Your task to perform on an android device: Add "logitech g pro" to the cart on costco.com, then select checkout. Image 0: 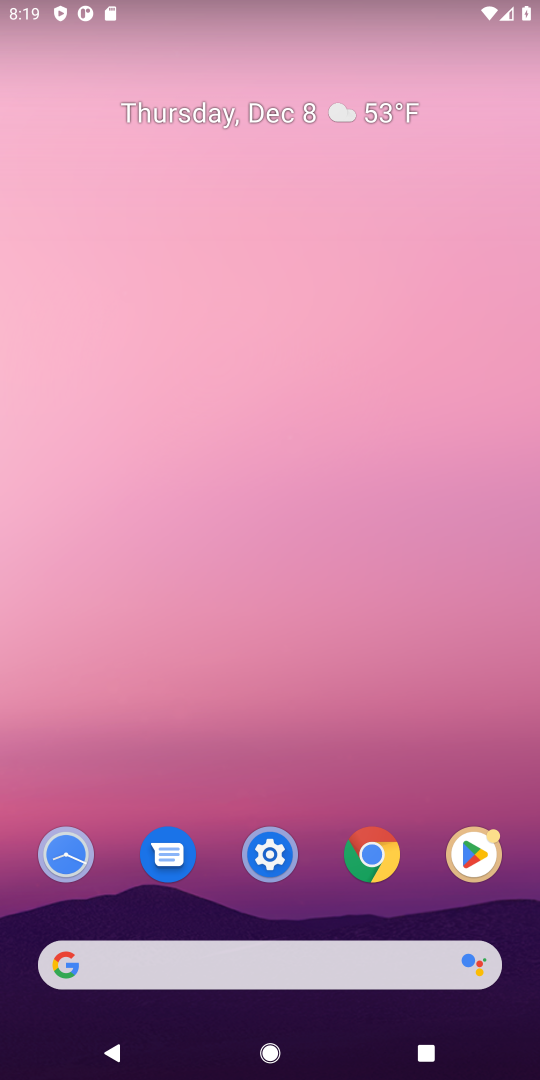
Step 0: press home button
Your task to perform on an android device: Add "logitech g pro" to the cart on costco.com, then select checkout. Image 1: 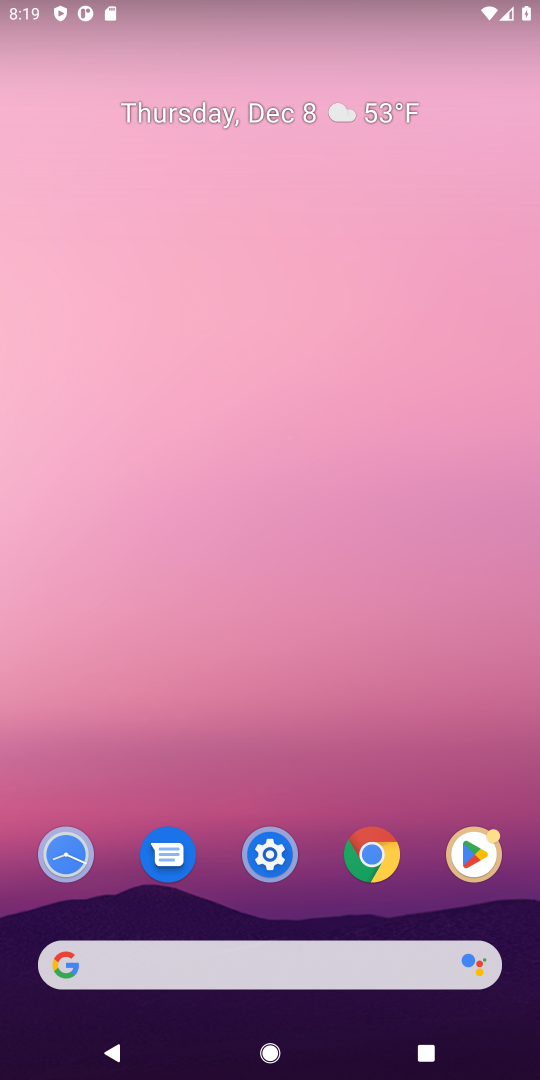
Step 1: click (82, 957)
Your task to perform on an android device: Add "logitech g pro" to the cart on costco.com, then select checkout. Image 2: 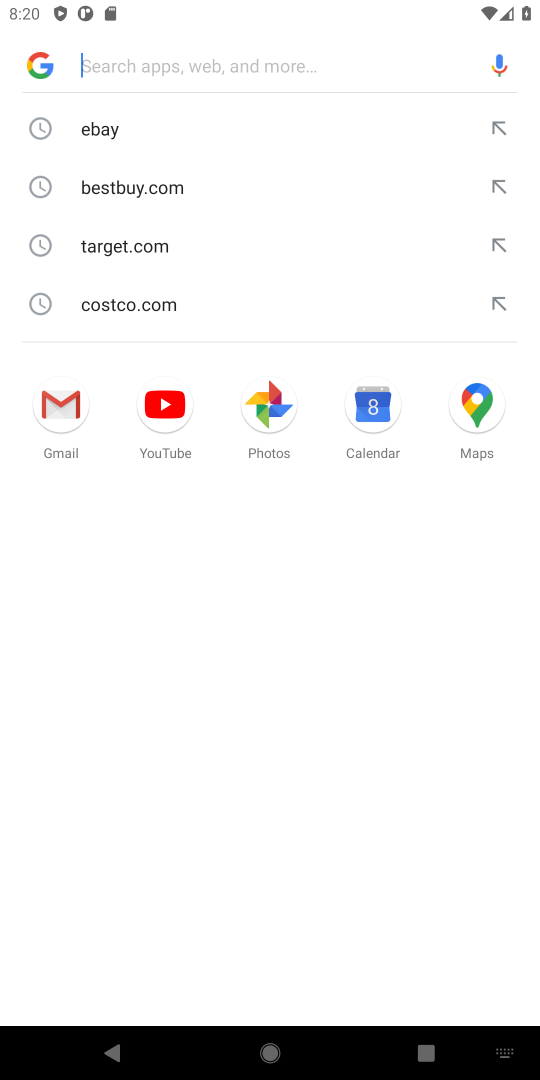
Step 2: type "costco.com"
Your task to perform on an android device: Add "logitech g pro" to the cart on costco.com, then select checkout. Image 3: 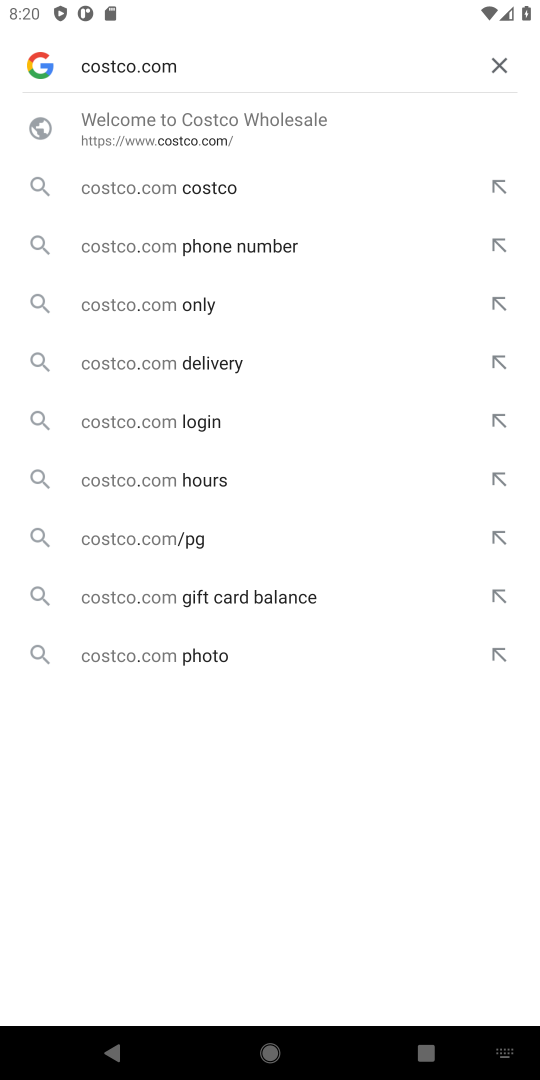
Step 3: press enter
Your task to perform on an android device: Add "logitech g pro" to the cart on costco.com, then select checkout. Image 4: 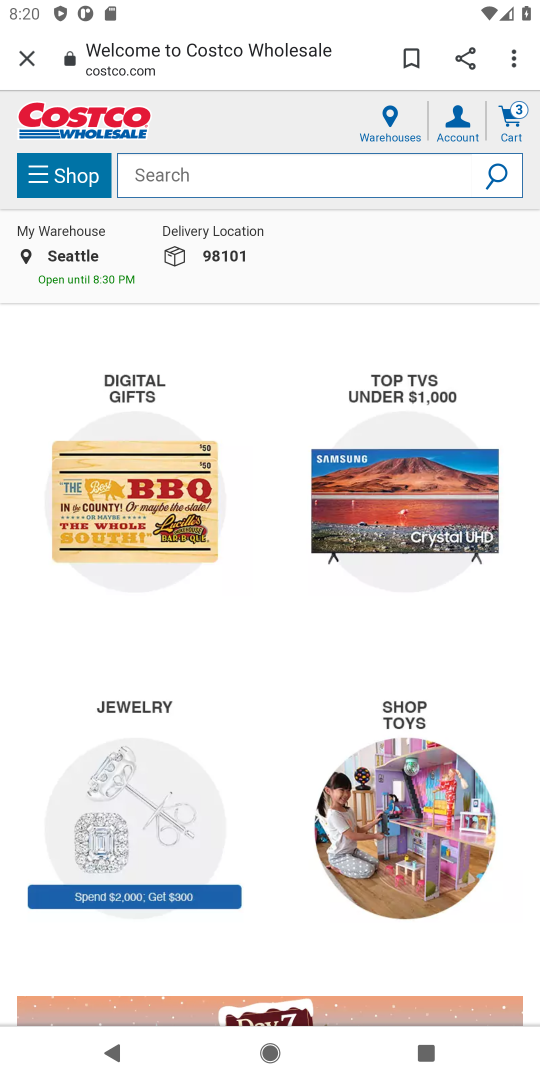
Step 4: click (235, 173)
Your task to perform on an android device: Add "logitech g pro" to the cart on costco.com, then select checkout. Image 5: 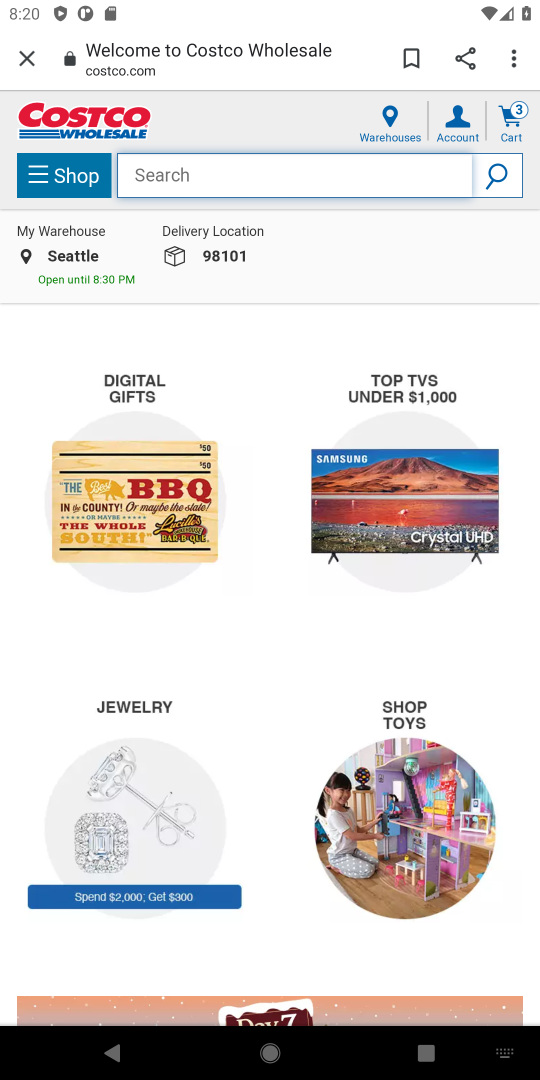
Step 5: click (245, 173)
Your task to perform on an android device: Add "logitech g pro" to the cart on costco.com, then select checkout. Image 6: 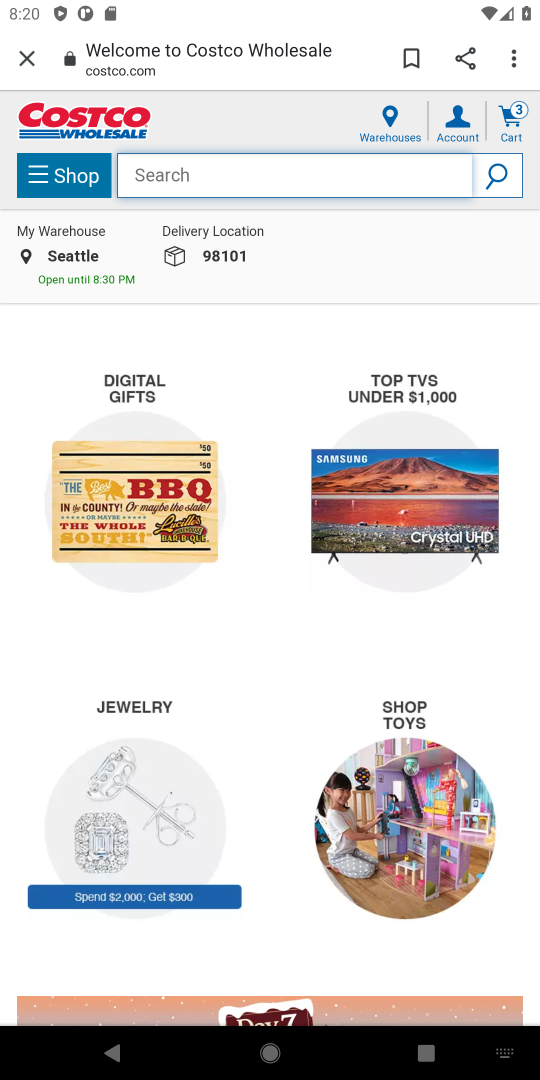
Step 6: type "logitech g pro"
Your task to perform on an android device: Add "logitech g pro" to the cart on costco.com, then select checkout. Image 7: 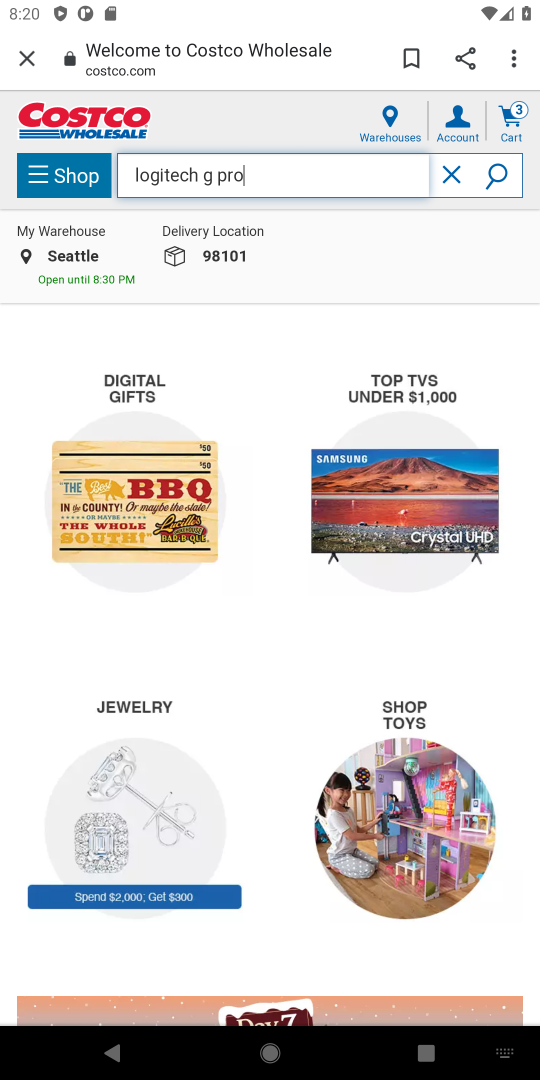
Step 7: press enter
Your task to perform on an android device: Add "logitech g pro" to the cart on costco.com, then select checkout. Image 8: 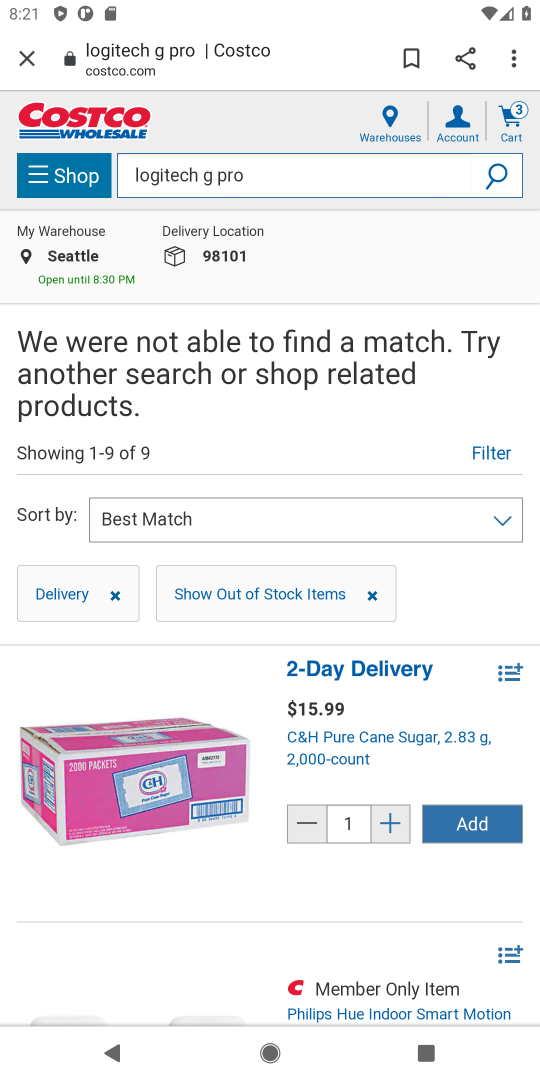
Step 8: task complete